Your task to perform on an android device: Open accessibility settings Image 0: 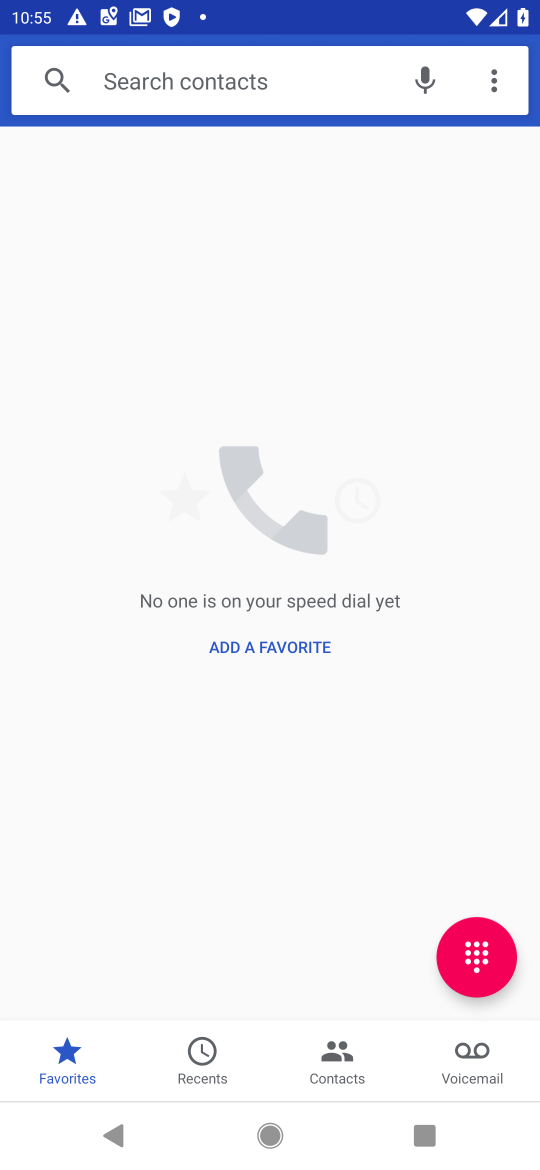
Step 0: press home button
Your task to perform on an android device: Open accessibility settings Image 1: 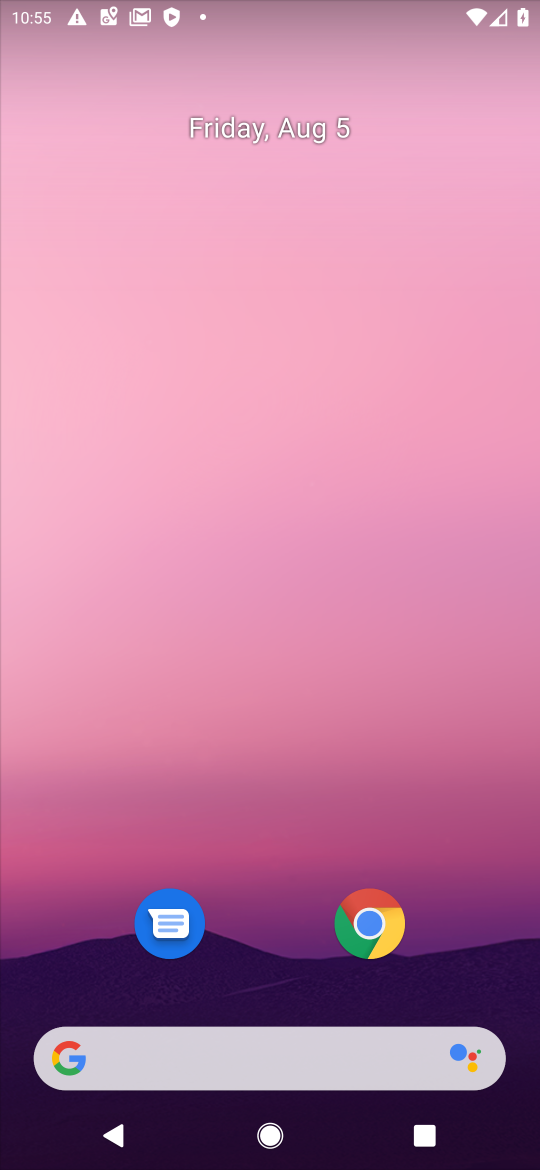
Step 1: drag from (335, 1058) to (322, 77)
Your task to perform on an android device: Open accessibility settings Image 2: 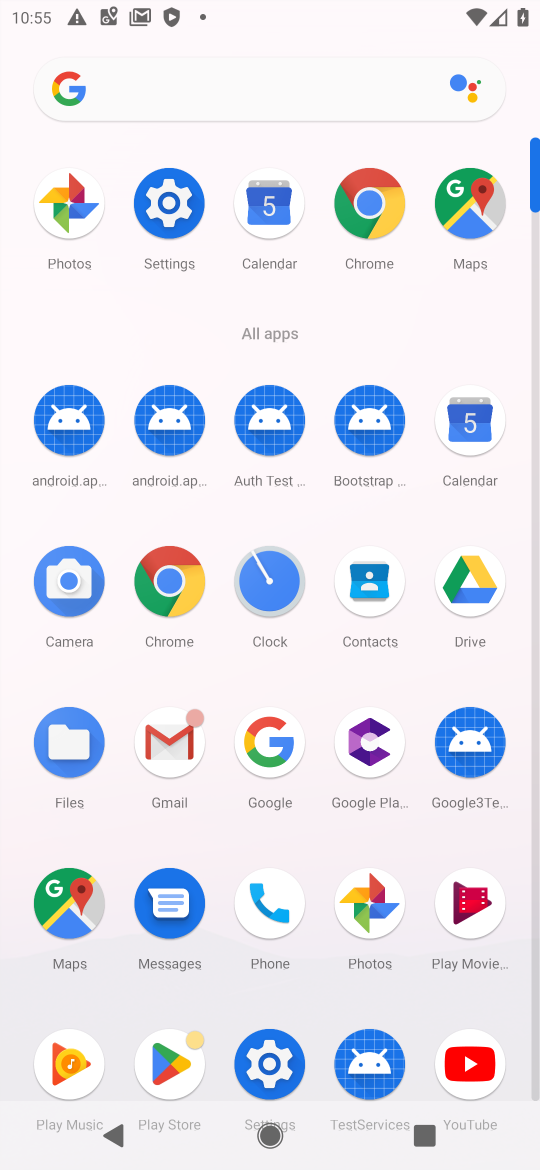
Step 2: click (183, 196)
Your task to perform on an android device: Open accessibility settings Image 3: 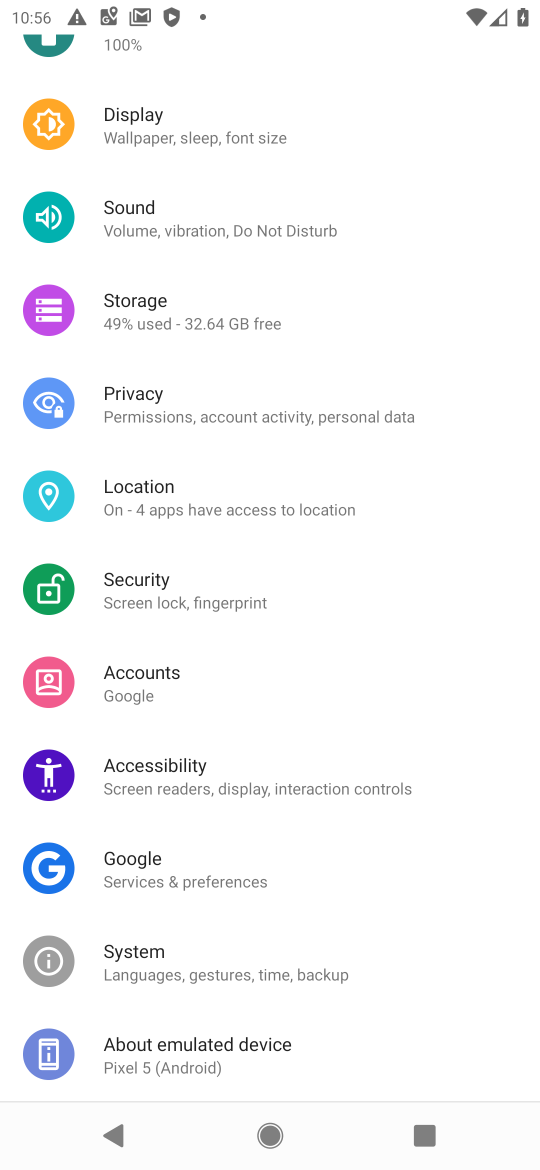
Step 3: click (191, 213)
Your task to perform on an android device: Open accessibility settings Image 4: 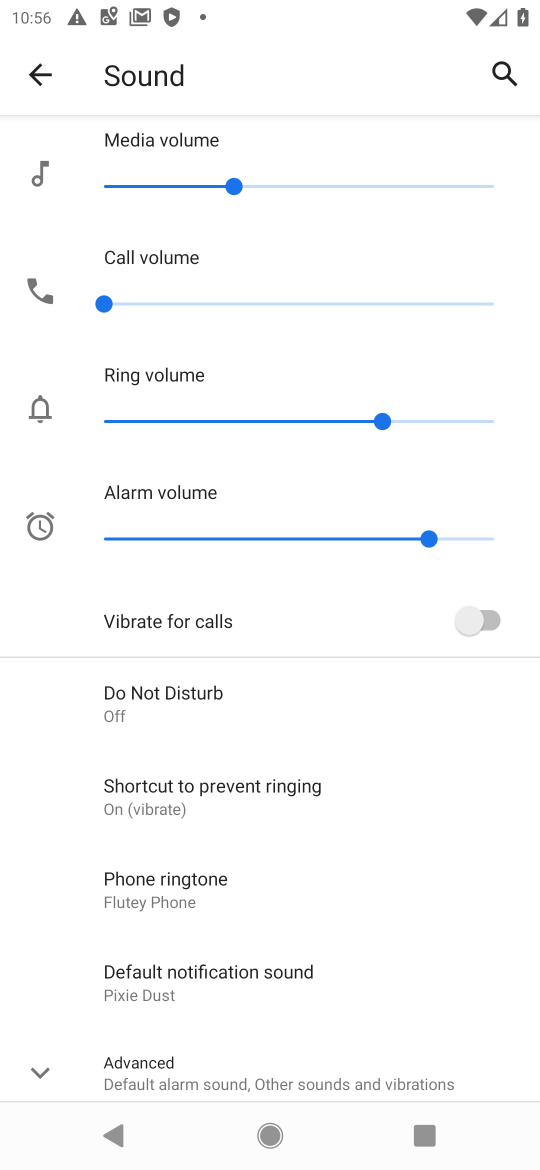
Step 4: click (191, 213)
Your task to perform on an android device: Open accessibility settings Image 5: 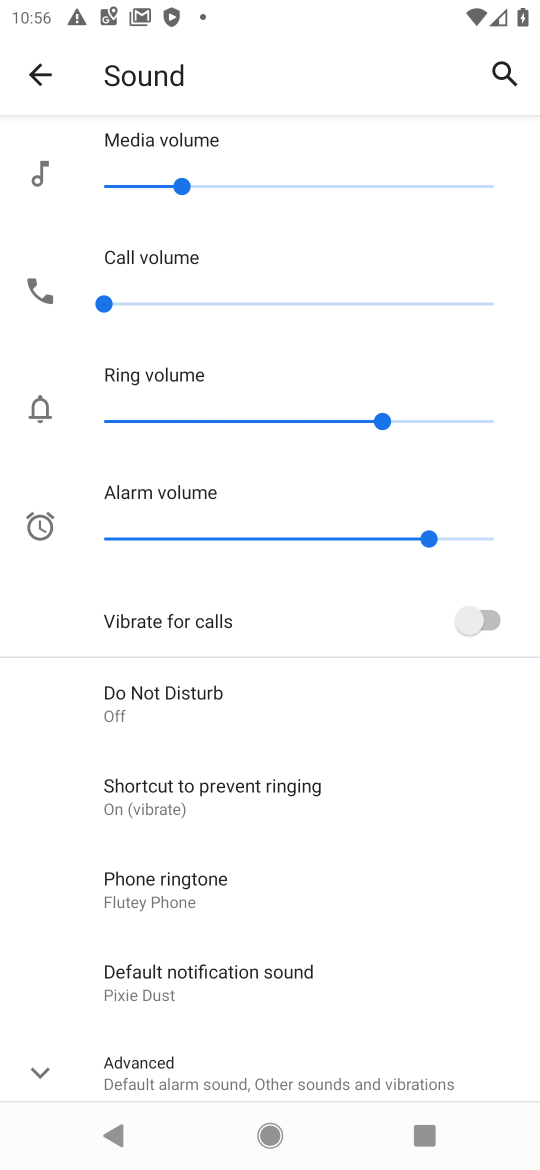
Step 5: press back button
Your task to perform on an android device: Open accessibility settings Image 6: 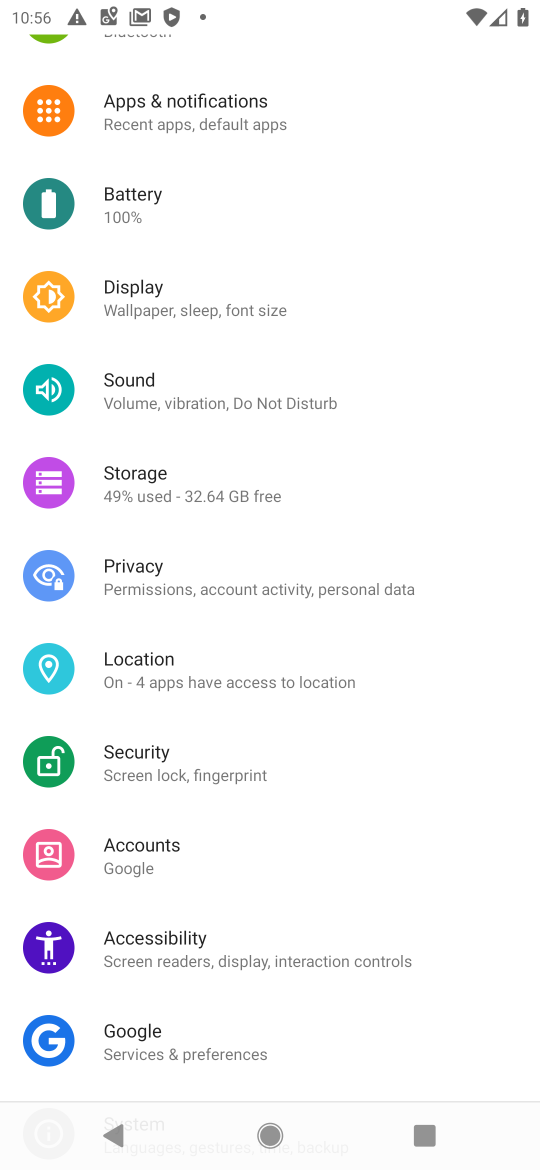
Step 6: click (278, 930)
Your task to perform on an android device: Open accessibility settings Image 7: 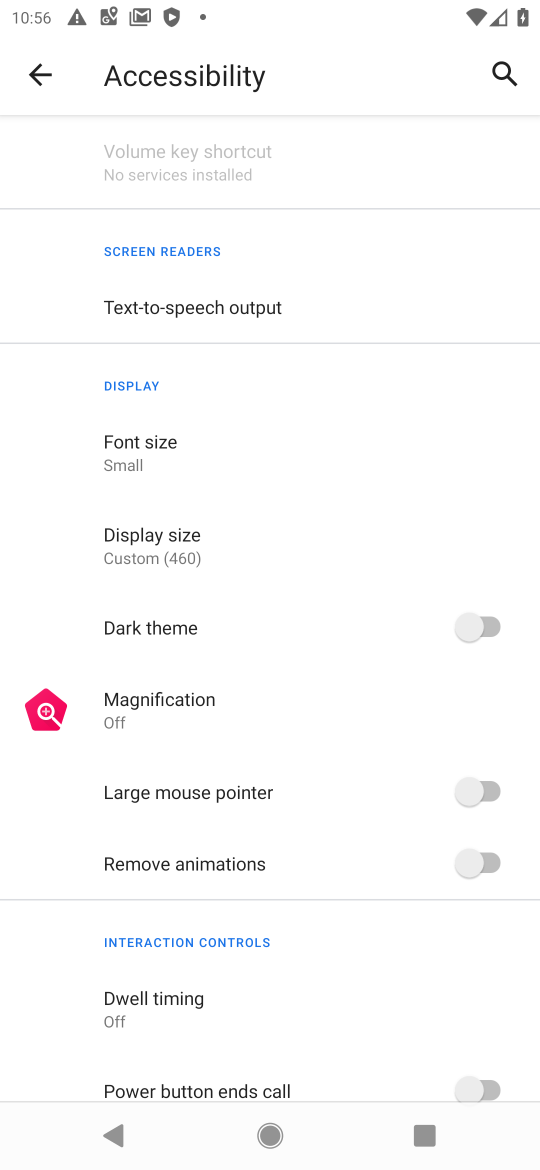
Step 7: click (297, 918)
Your task to perform on an android device: Open accessibility settings Image 8: 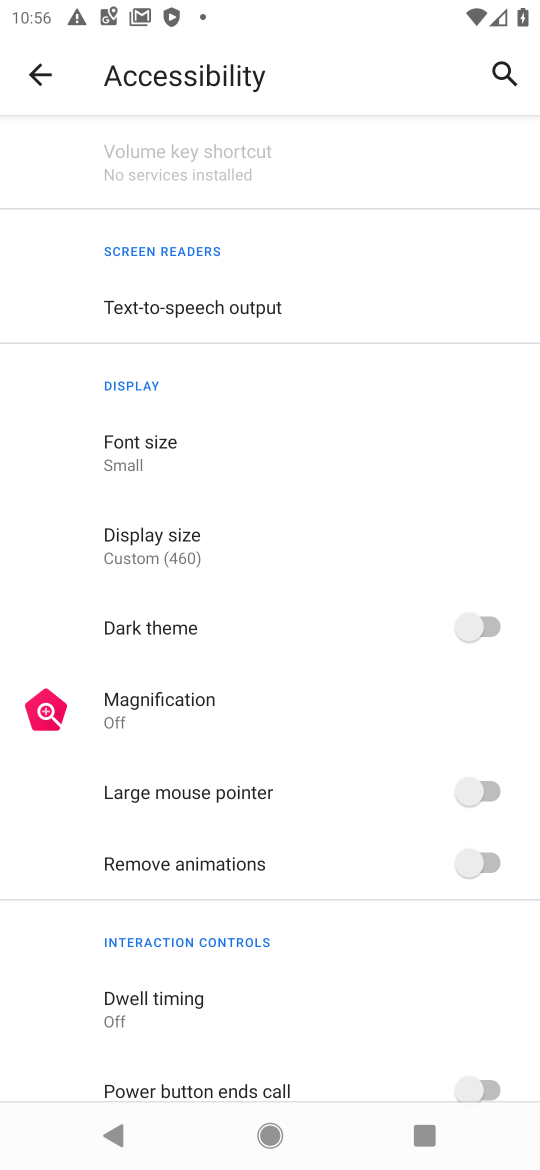
Step 8: press home button
Your task to perform on an android device: Open accessibility settings Image 9: 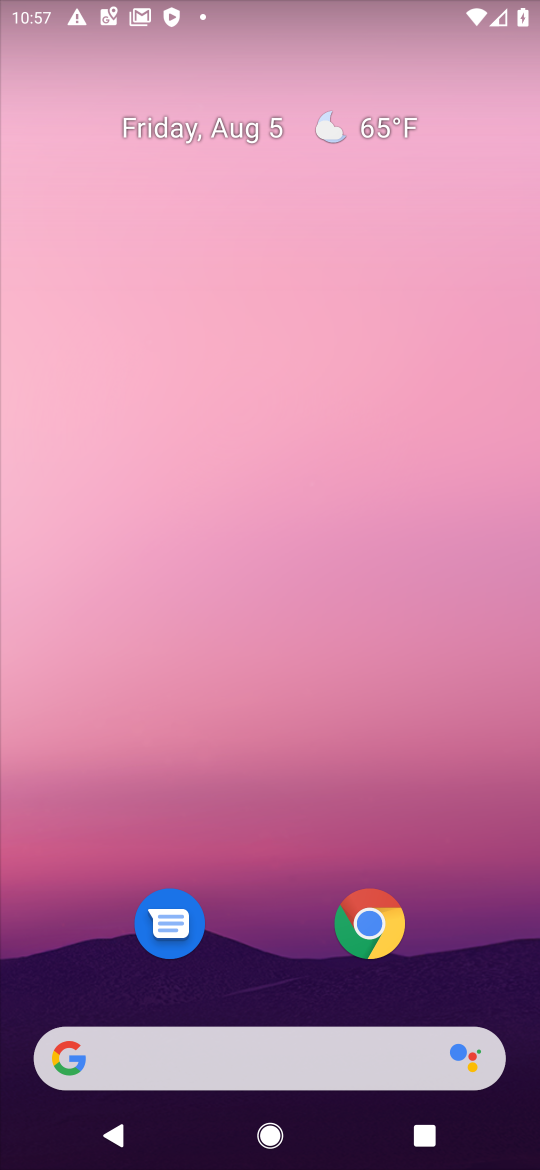
Step 9: drag from (234, 1059) to (361, 72)
Your task to perform on an android device: Open accessibility settings Image 10: 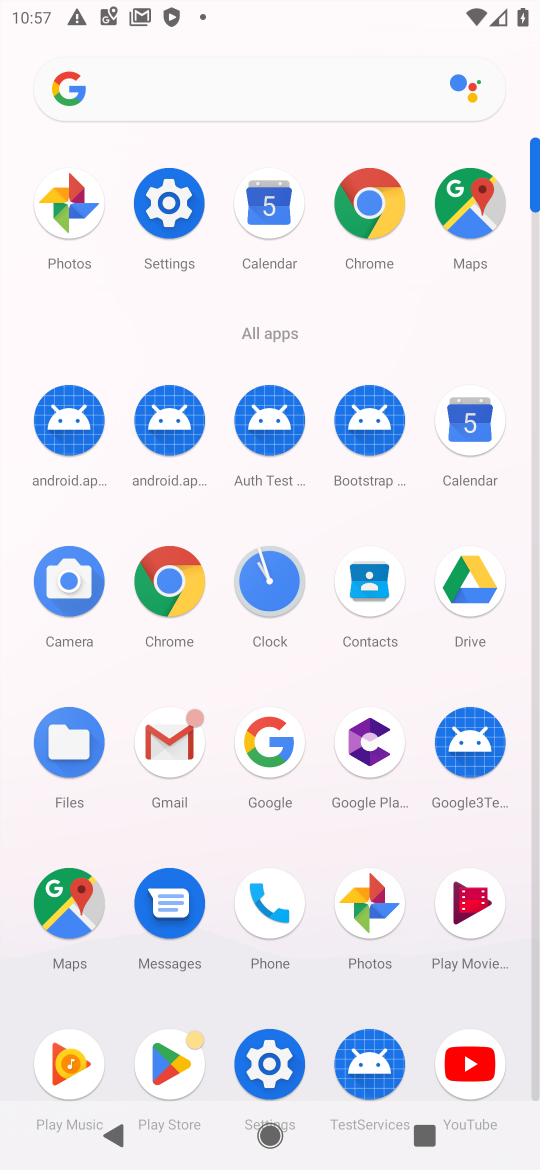
Step 10: click (246, 1050)
Your task to perform on an android device: Open accessibility settings Image 11: 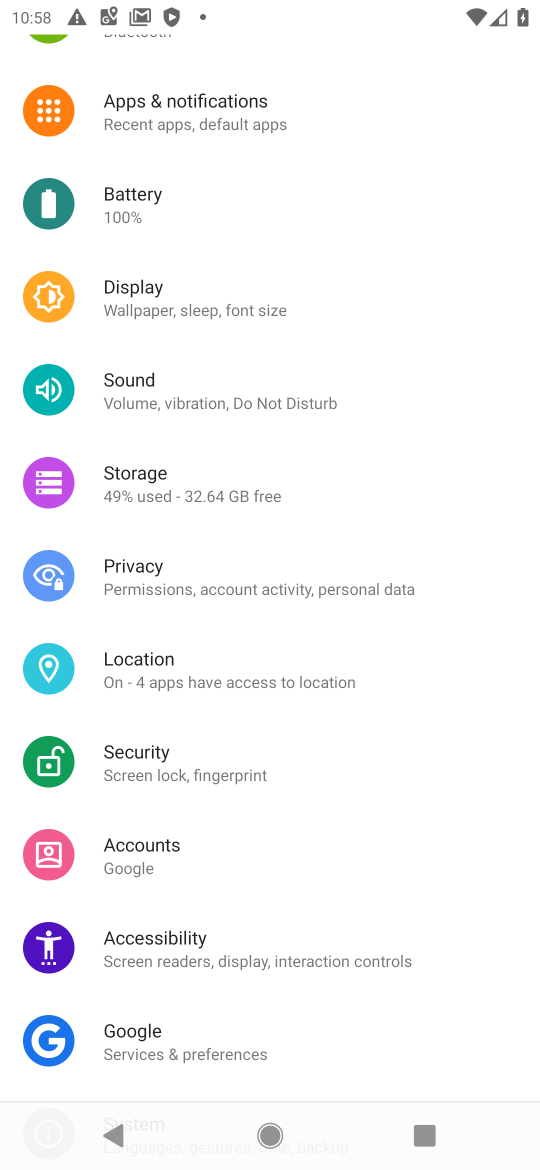
Step 11: click (219, 948)
Your task to perform on an android device: Open accessibility settings Image 12: 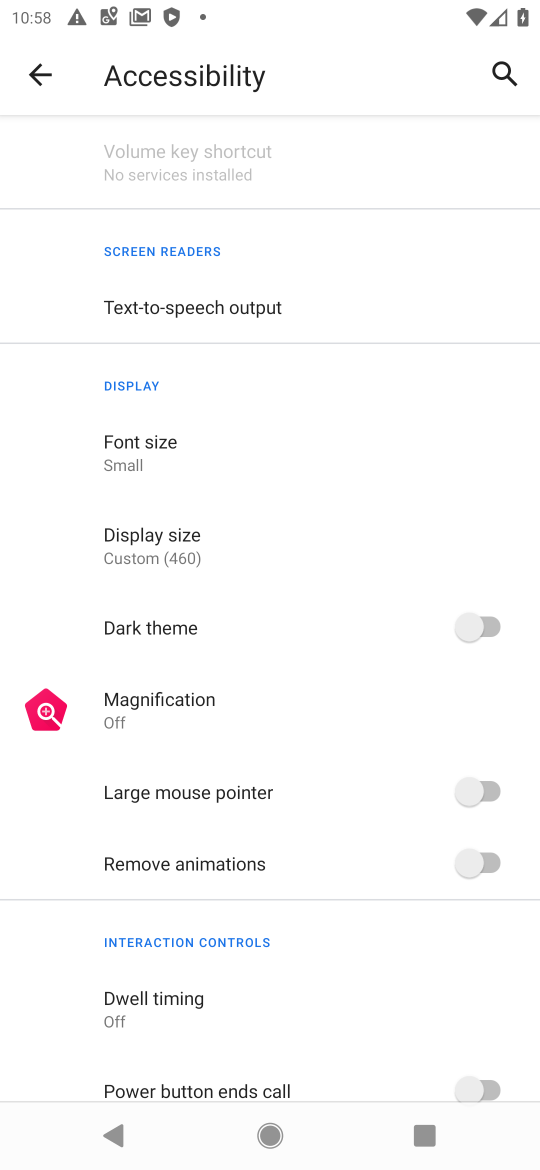
Step 12: task complete